Your task to perform on an android device: turn on airplane mode Image 0: 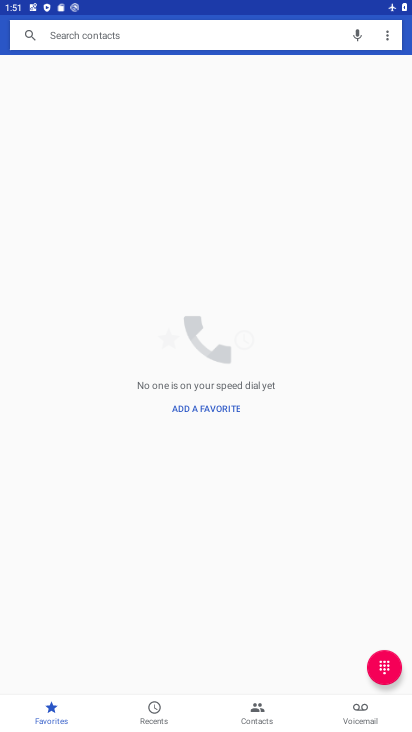
Step 0: press home button
Your task to perform on an android device: turn on airplane mode Image 1: 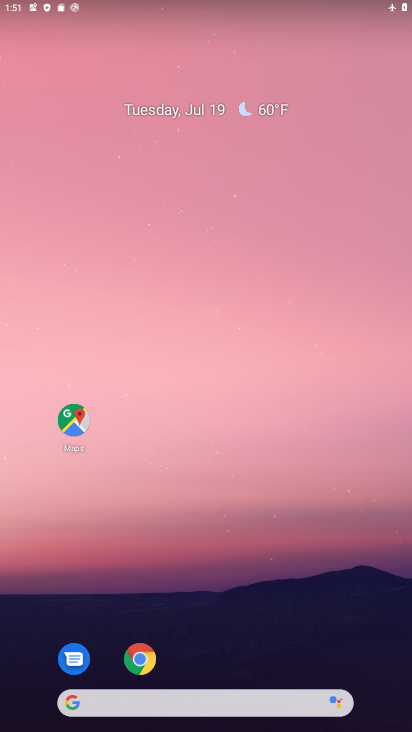
Step 1: task complete